Your task to perform on an android device: see creations saved in the google photos Image 0: 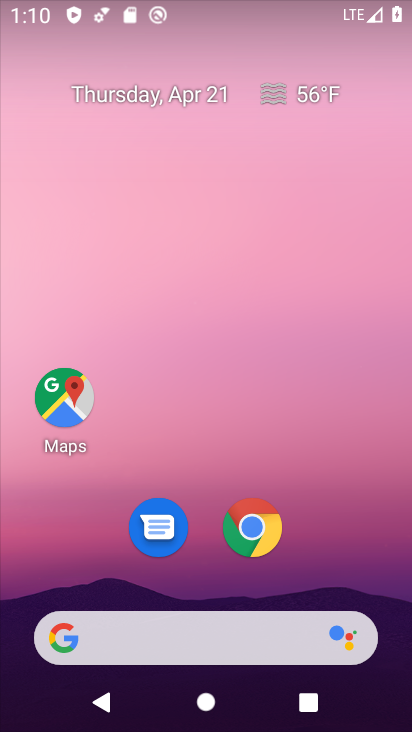
Step 0: drag from (222, 310) to (254, 12)
Your task to perform on an android device: see creations saved in the google photos Image 1: 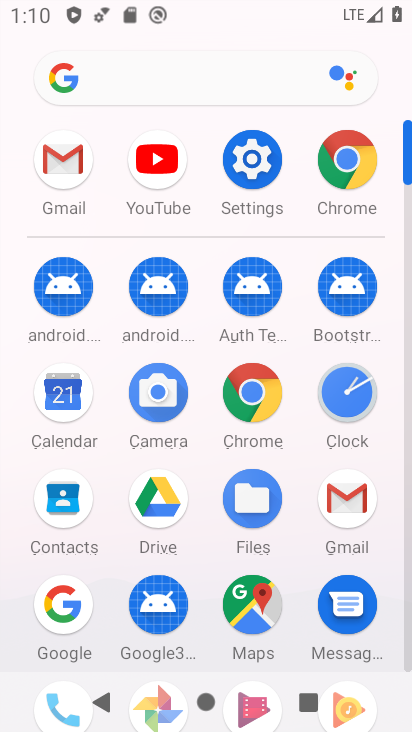
Step 1: drag from (211, 610) to (224, 396)
Your task to perform on an android device: see creations saved in the google photos Image 2: 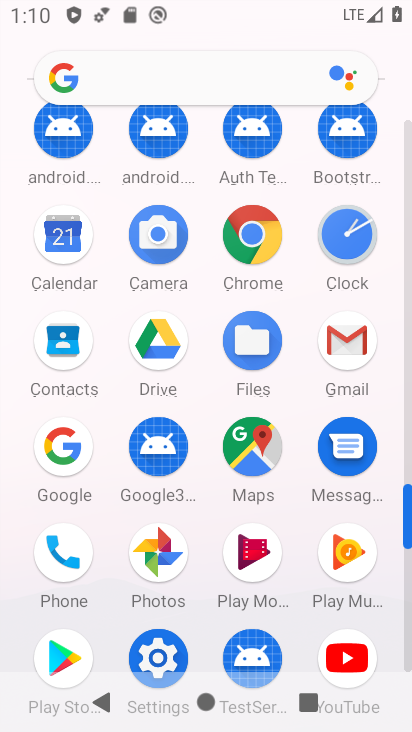
Step 2: click (153, 565)
Your task to perform on an android device: see creations saved in the google photos Image 3: 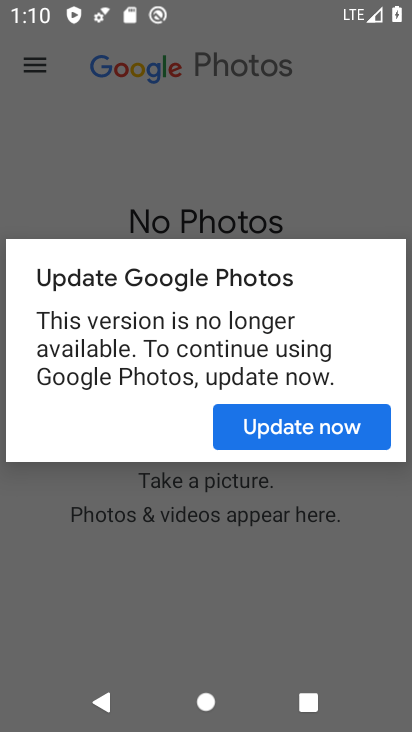
Step 3: click (326, 429)
Your task to perform on an android device: see creations saved in the google photos Image 4: 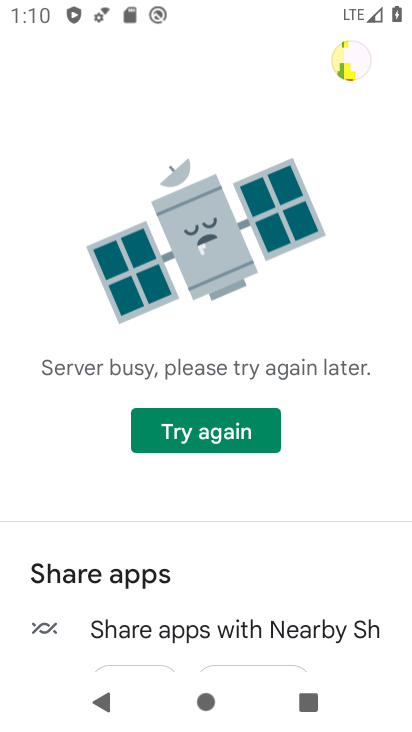
Step 4: click (261, 429)
Your task to perform on an android device: see creations saved in the google photos Image 5: 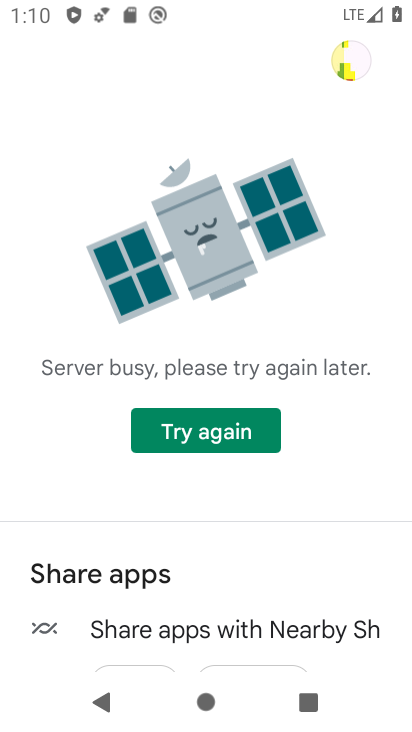
Step 5: task complete